Your task to perform on an android device: change notification settings in the gmail app Image 0: 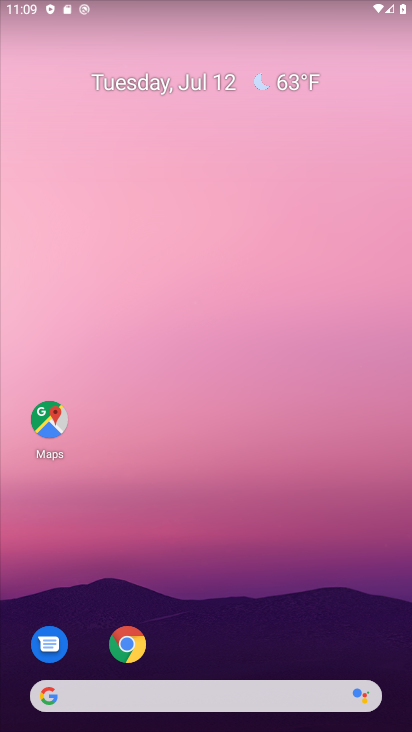
Step 0: drag from (219, 702) to (270, 232)
Your task to perform on an android device: change notification settings in the gmail app Image 1: 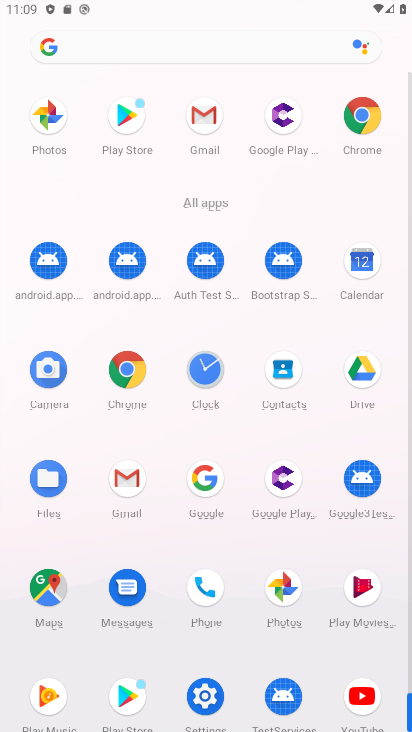
Step 1: click (205, 111)
Your task to perform on an android device: change notification settings in the gmail app Image 2: 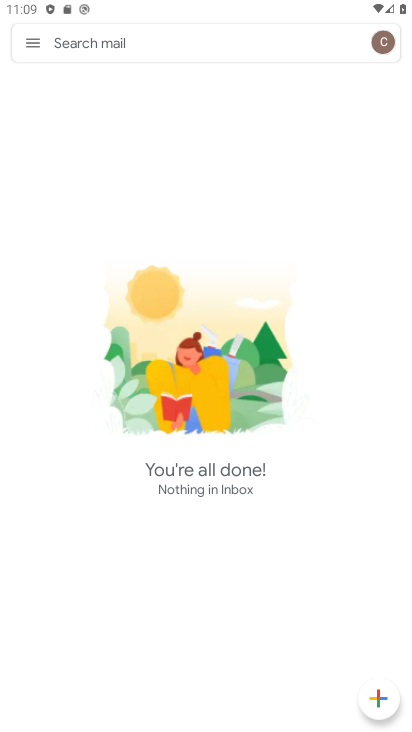
Step 2: click (31, 43)
Your task to perform on an android device: change notification settings in the gmail app Image 3: 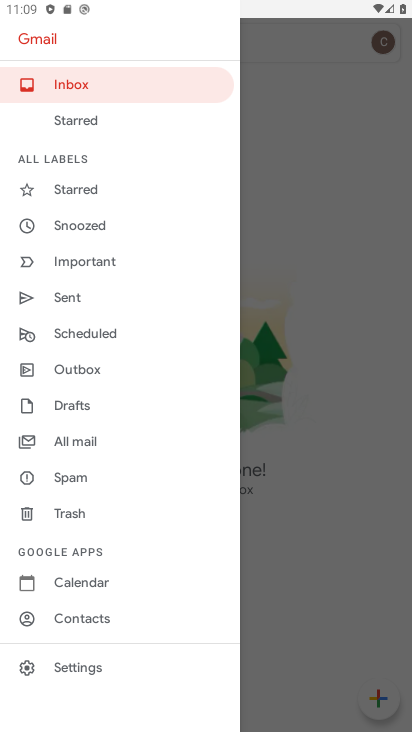
Step 3: click (75, 666)
Your task to perform on an android device: change notification settings in the gmail app Image 4: 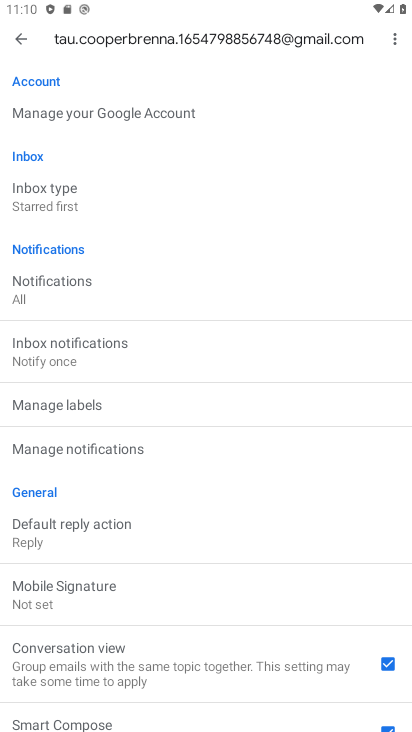
Step 4: click (65, 447)
Your task to perform on an android device: change notification settings in the gmail app Image 5: 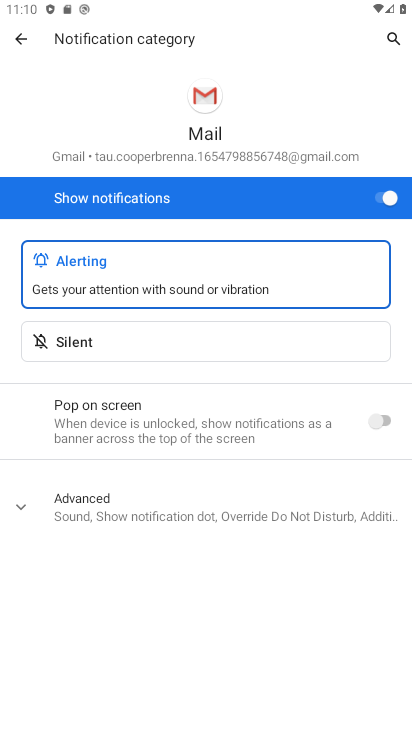
Step 5: click (384, 196)
Your task to perform on an android device: change notification settings in the gmail app Image 6: 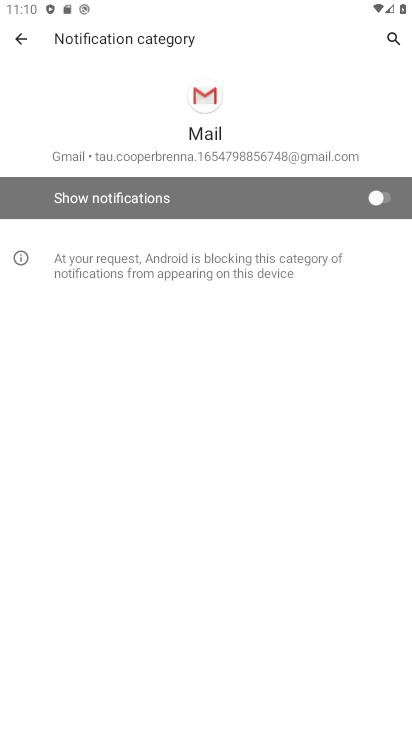
Step 6: task complete